Your task to perform on an android device: Open the Play Movies app and select the watchlist tab. Image 0: 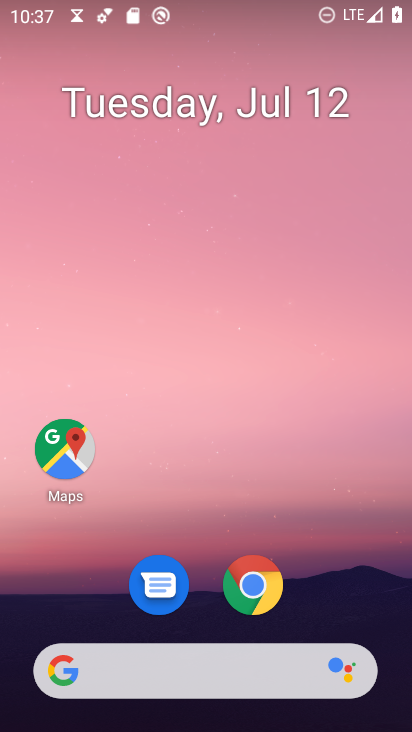
Step 0: drag from (193, 622) to (199, 178)
Your task to perform on an android device: Open the Play Movies app and select the watchlist tab. Image 1: 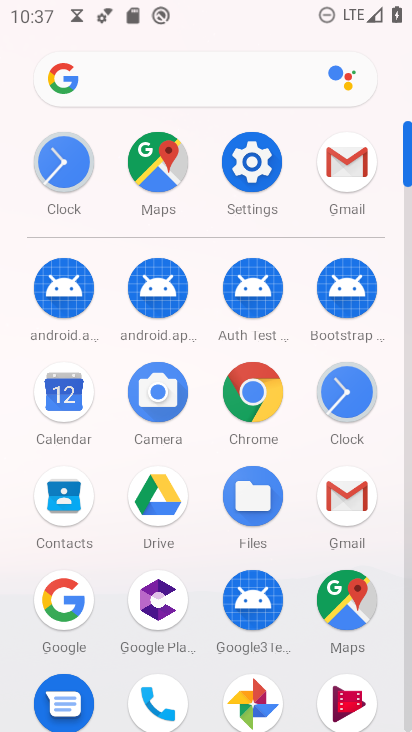
Step 1: drag from (277, 604) to (311, 207)
Your task to perform on an android device: Open the Play Movies app and select the watchlist tab. Image 2: 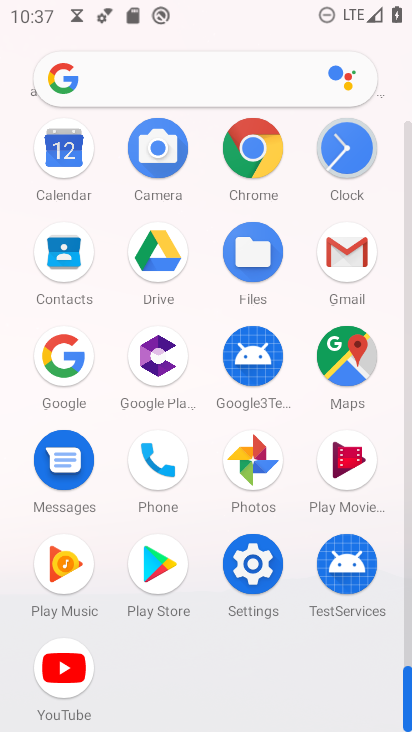
Step 2: click (344, 472)
Your task to perform on an android device: Open the Play Movies app and select the watchlist tab. Image 3: 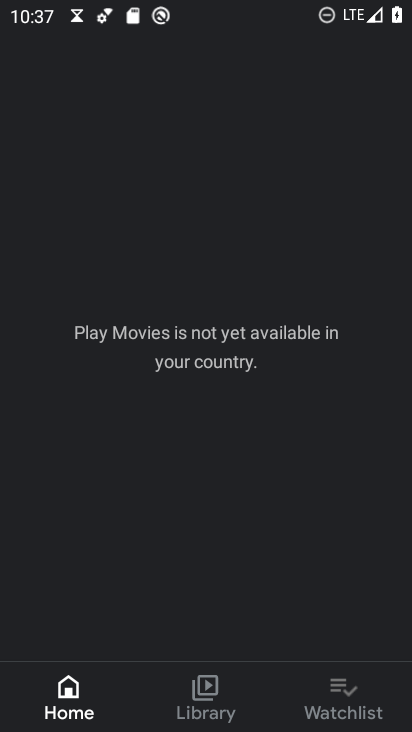
Step 3: click (338, 695)
Your task to perform on an android device: Open the Play Movies app and select the watchlist tab. Image 4: 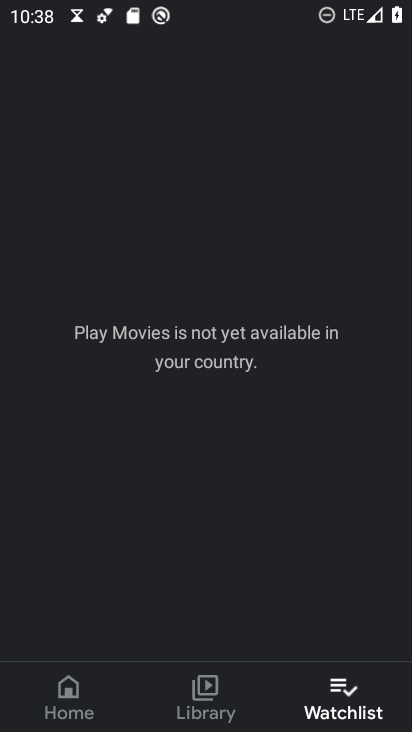
Step 4: task complete